Your task to perform on an android device: Go to settings Image 0: 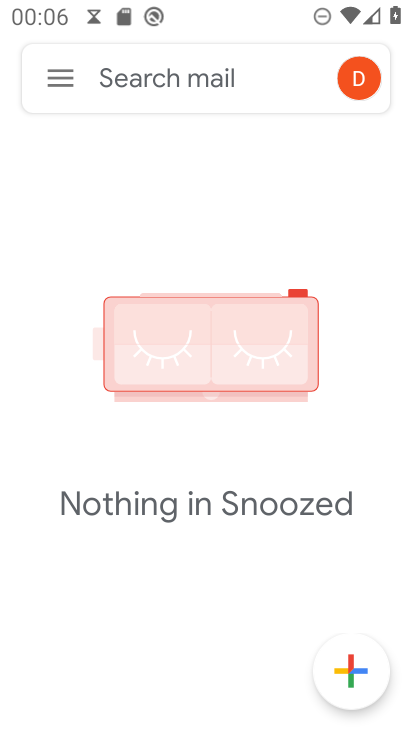
Step 0: press home button
Your task to perform on an android device: Go to settings Image 1: 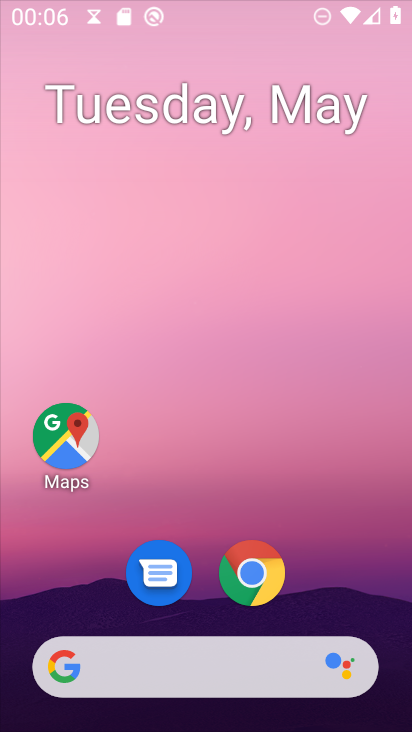
Step 1: drag from (310, 557) to (235, 88)
Your task to perform on an android device: Go to settings Image 2: 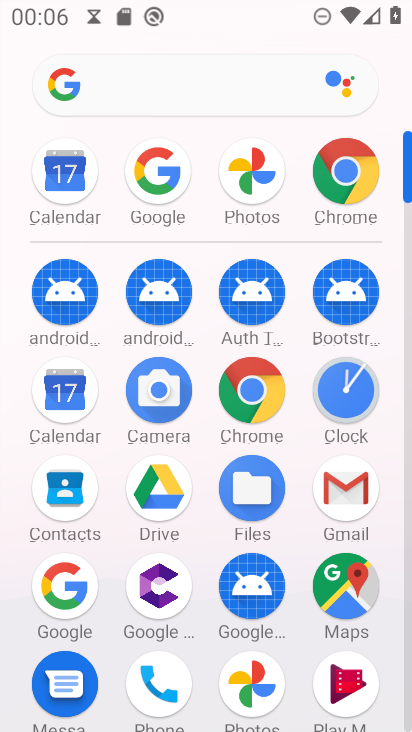
Step 2: drag from (235, 594) to (239, 150)
Your task to perform on an android device: Go to settings Image 3: 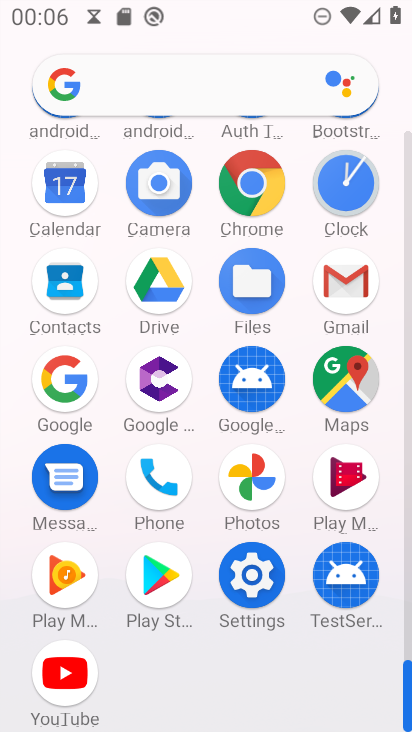
Step 3: click (256, 584)
Your task to perform on an android device: Go to settings Image 4: 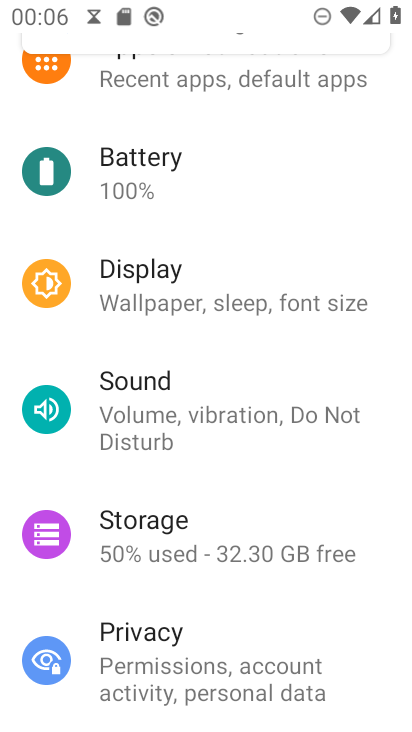
Step 4: task complete